Your task to perform on an android device: add a contact Image 0: 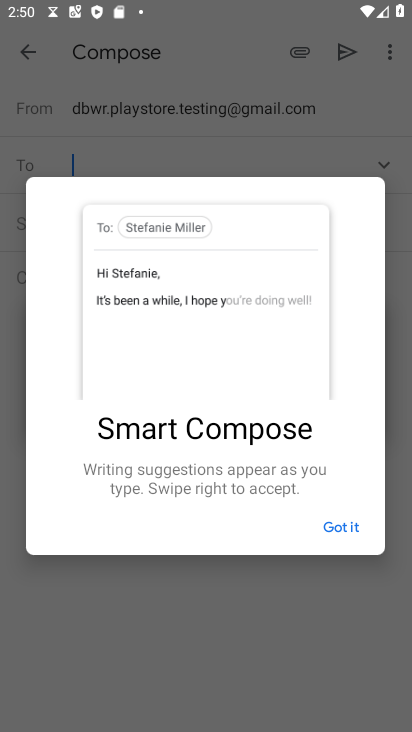
Step 0: press home button
Your task to perform on an android device: add a contact Image 1: 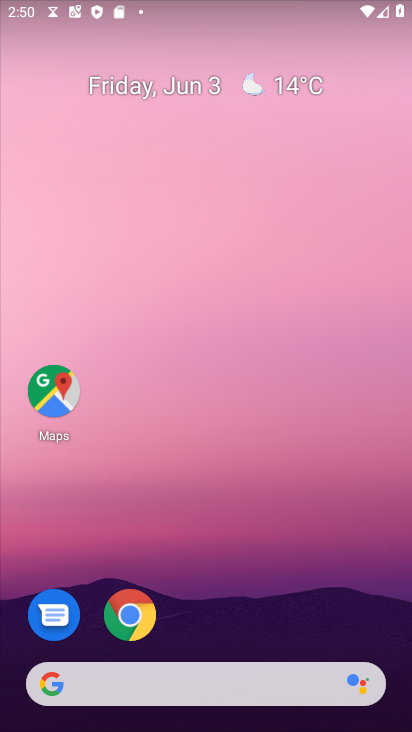
Step 1: drag from (238, 628) to (282, 21)
Your task to perform on an android device: add a contact Image 2: 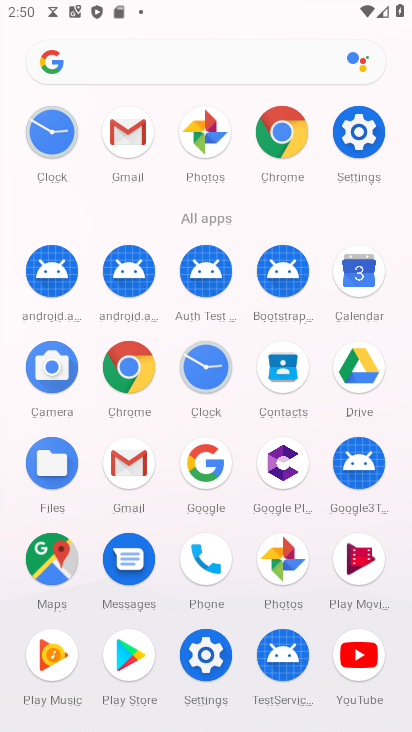
Step 2: click (284, 365)
Your task to perform on an android device: add a contact Image 3: 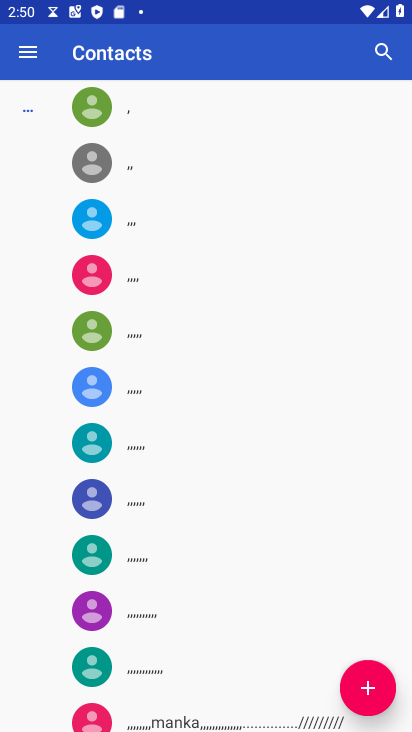
Step 3: click (365, 684)
Your task to perform on an android device: add a contact Image 4: 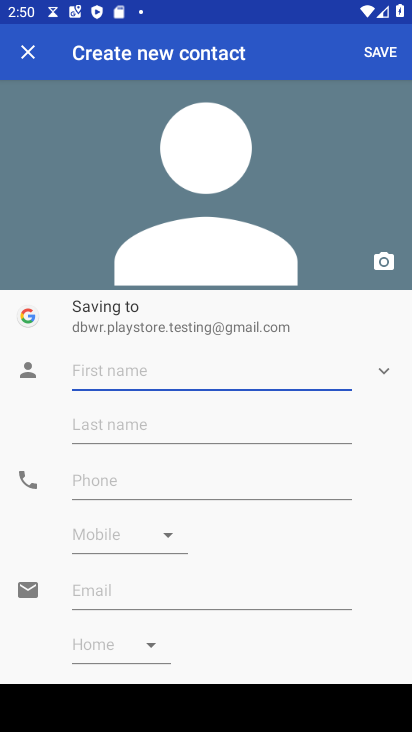
Step 4: type "nmnn,nm"
Your task to perform on an android device: add a contact Image 5: 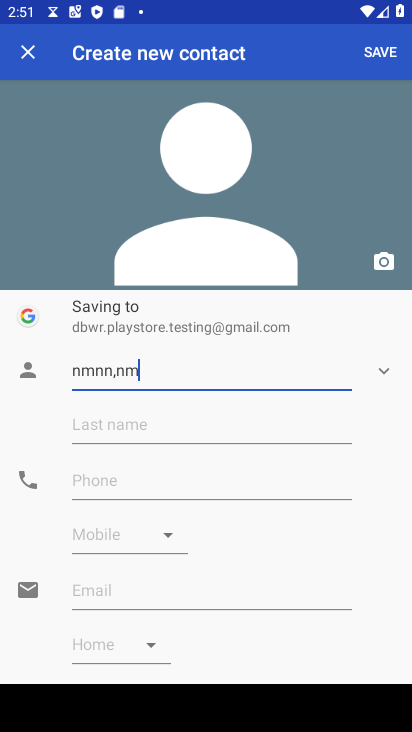
Step 5: click (159, 479)
Your task to perform on an android device: add a contact Image 6: 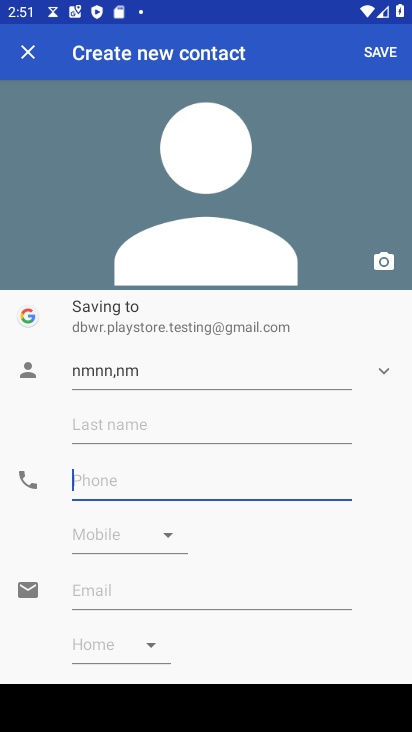
Step 6: type "89808080"
Your task to perform on an android device: add a contact Image 7: 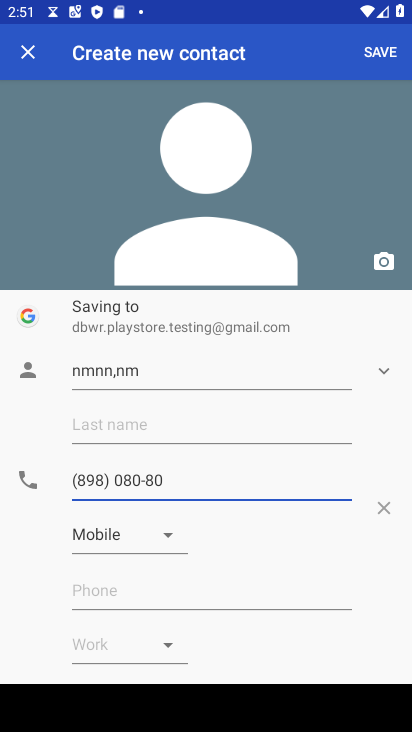
Step 7: click (394, 52)
Your task to perform on an android device: add a contact Image 8: 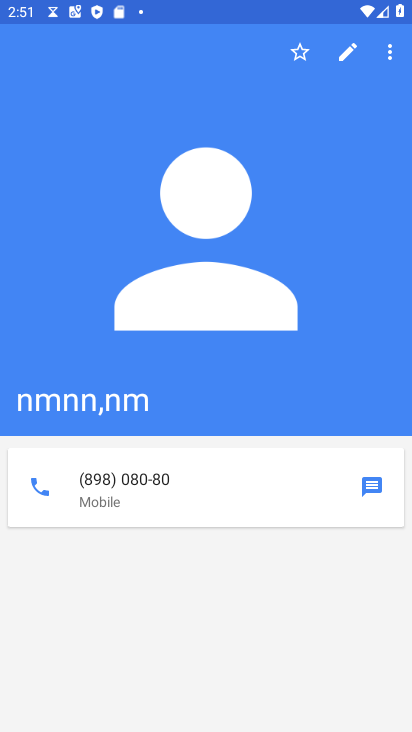
Step 8: task complete